Your task to perform on an android device: Play the last video I watched on Youtube Image 0: 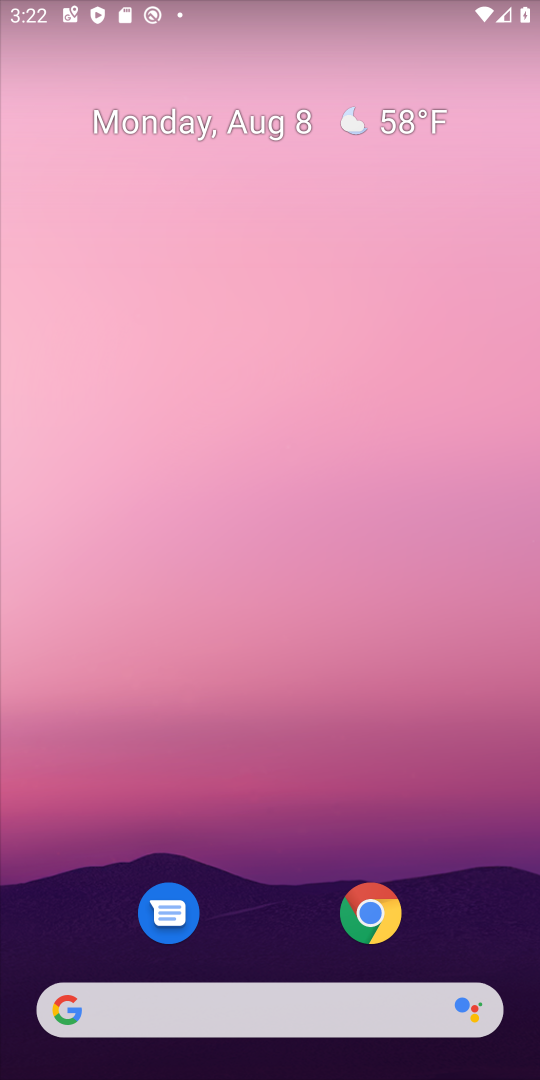
Step 0: press home button
Your task to perform on an android device: Play the last video I watched on Youtube Image 1: 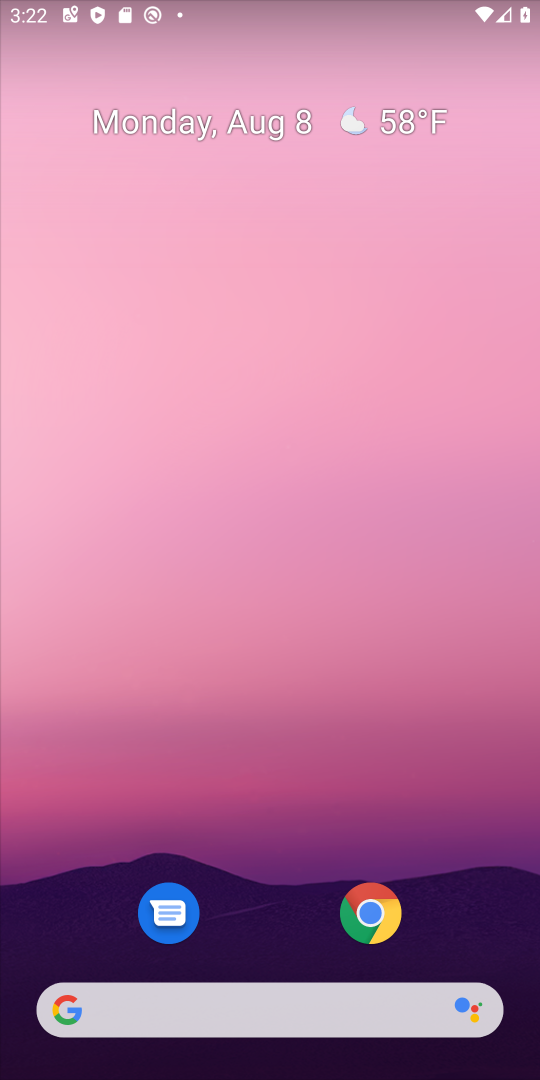
Step 1: drag from (272, 919) to (329, 407)
Your task to perform on an android device: Play the last video I watched on Youtube Image 2: 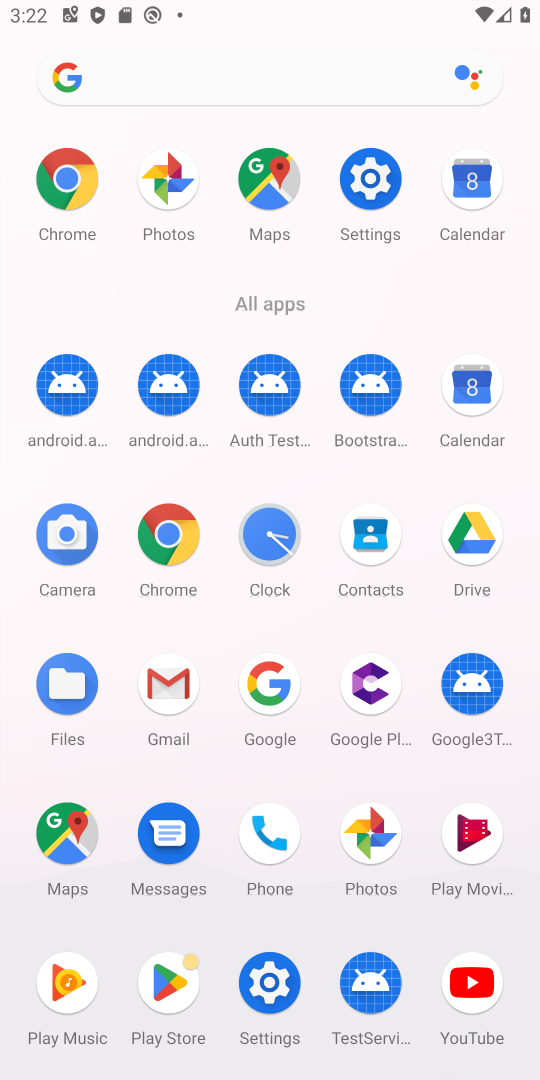
Step 2: click (457, 985)
Your task to perform on an android device: Play the last video I watched on Youtube Image 3: 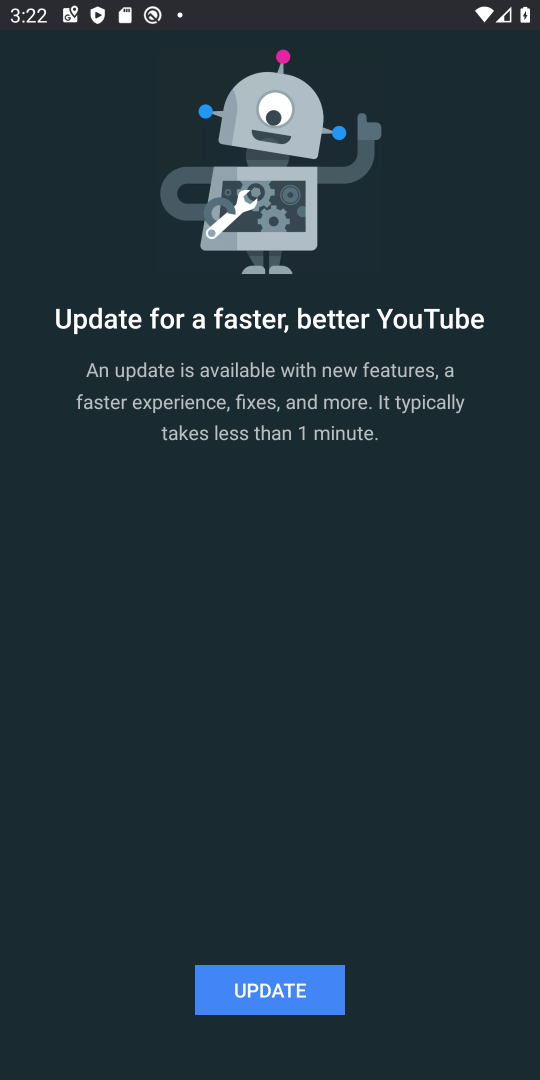
Step 3: click (310, 984)
Your task to perform on an android device: Play the last video I watched on Youtube Image 4: 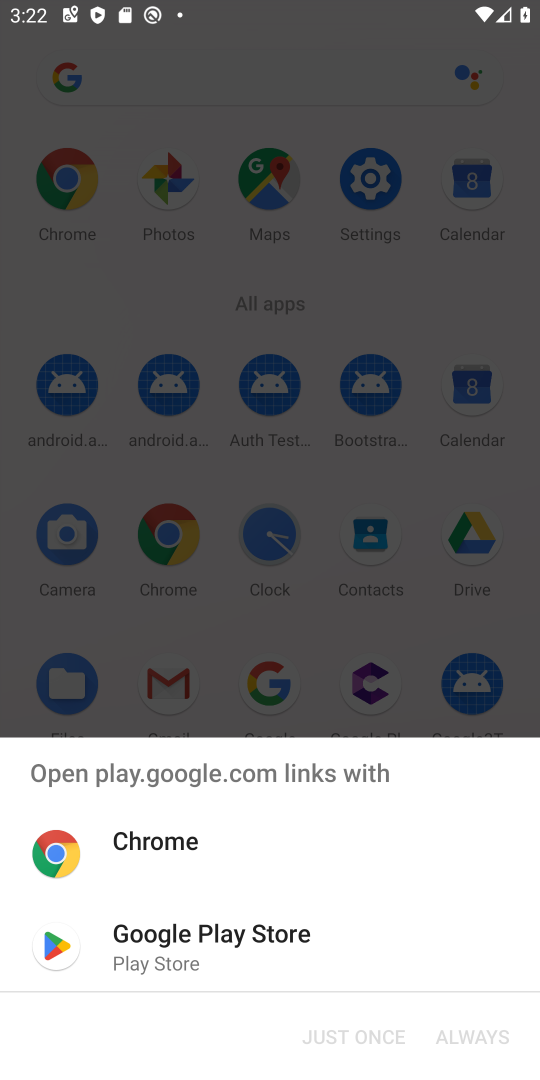
Step 4: click (209, 954)
Your task to perform on an android device: Play the last video I watched on Youtube Image 5: 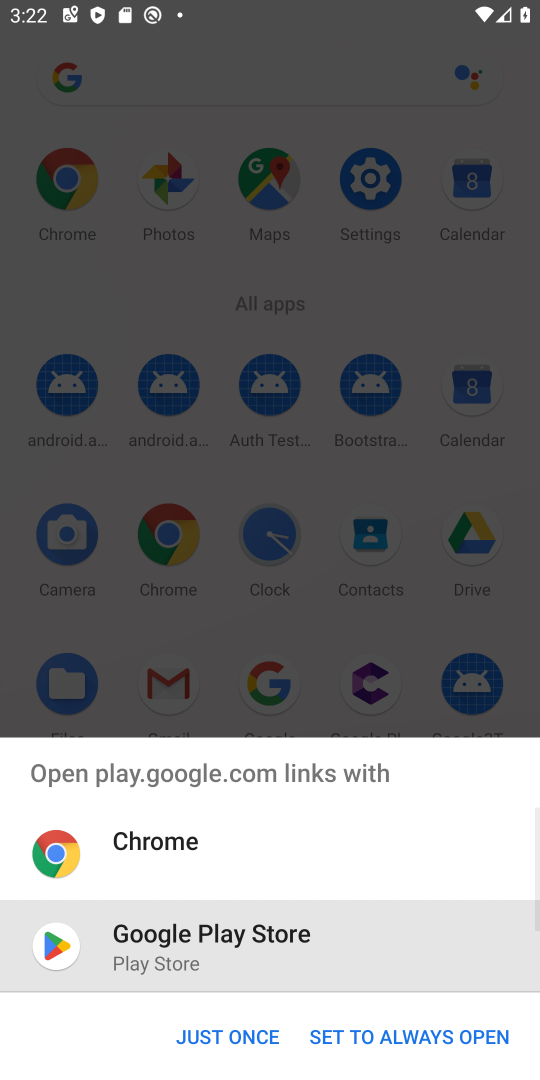
Step 5: click (222, 1038)
Your task to perform on an android device: Play the last video I watched on Youtube Image 6: 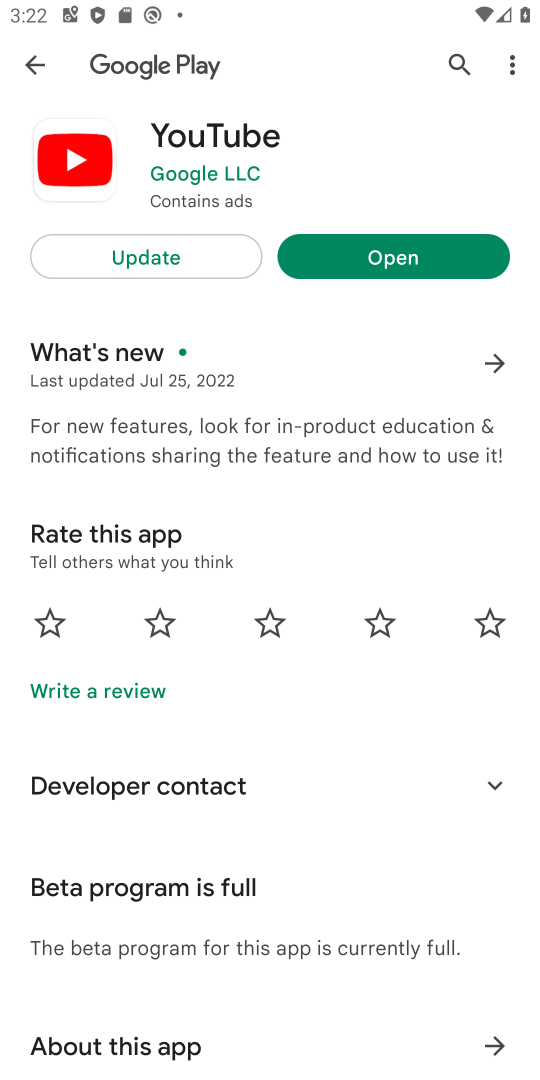
Step 6: click (172, 243)
Your task to perform on an android device: Play the last video I watched on Youtube Image 7: 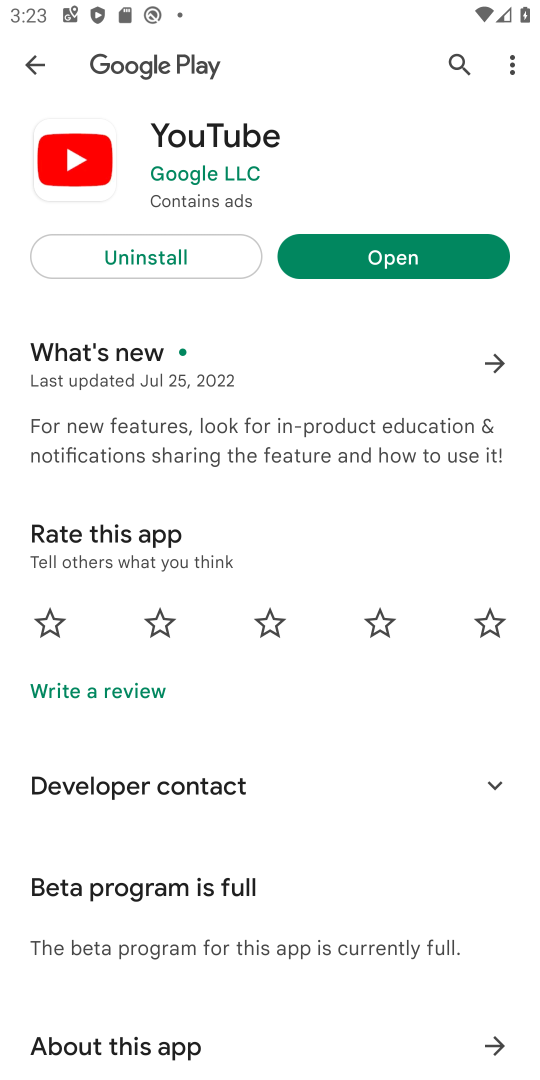
Step 7: click (436, 244)
Your task to perform on an android device: Play the last video I watched on Youtube Image 8: 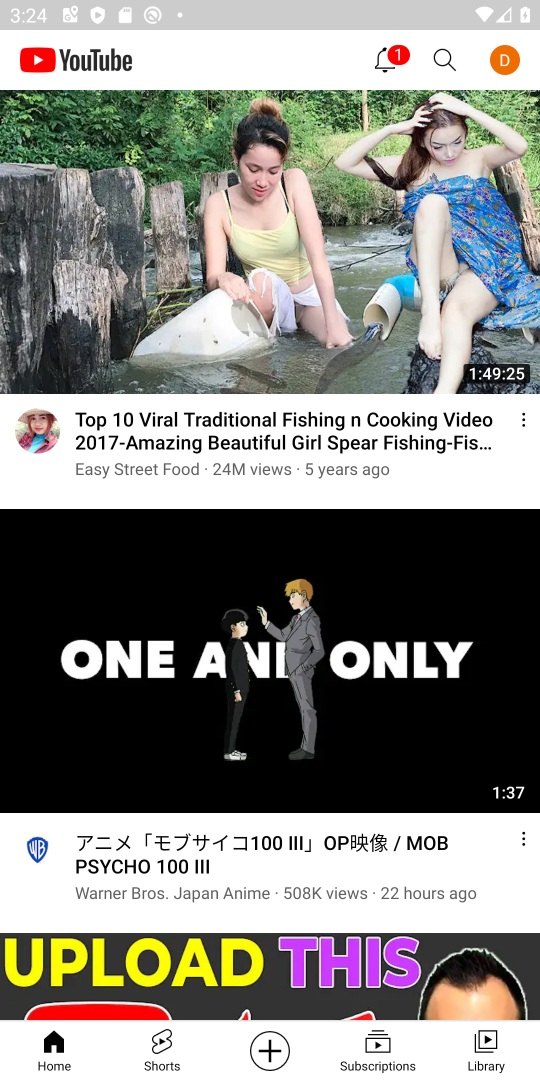
Step 8: click (482, 1055)
Your task to perform on an android device: Play the last video I watched on Youtube Image 9: 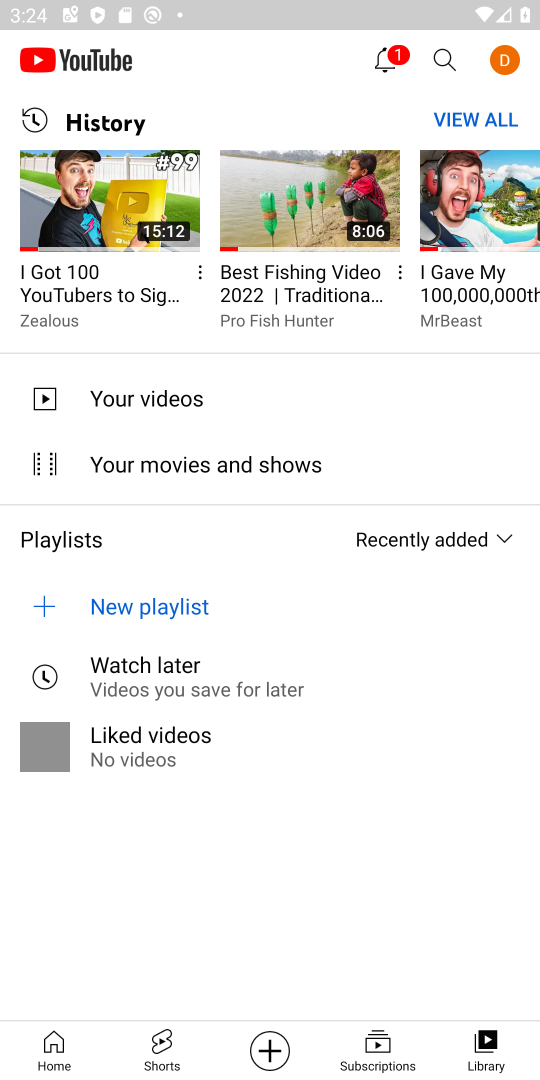
Step 9: click (107, 197)
Your task to perform on an android device: Play the last video I watched on Youtube Image 10: 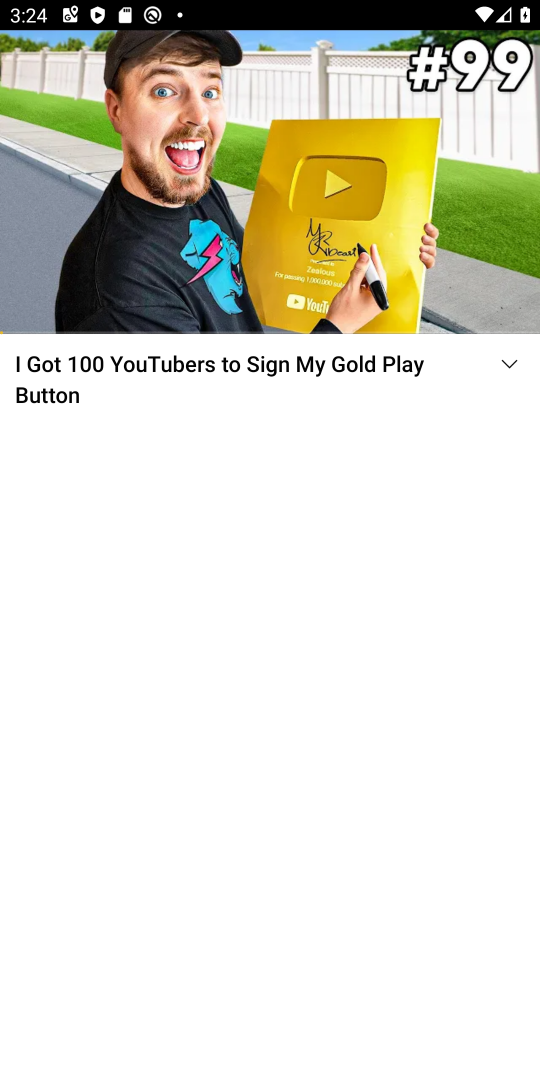
Step 10: task complete